Your task to perform on an android device: Open maps Image 0: 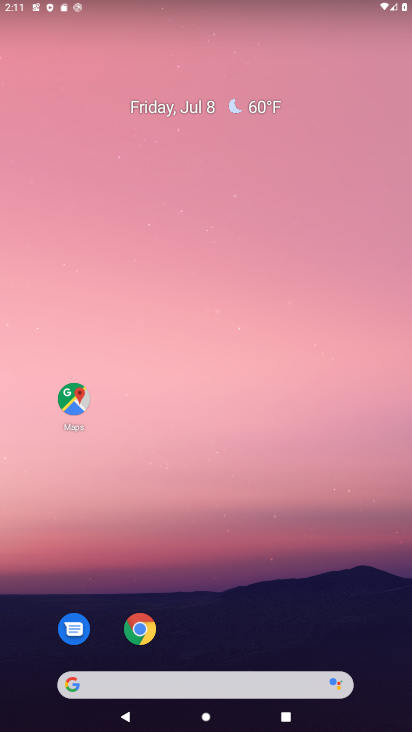
Step 0: click (70, 395)
Your task to perform on an android device: Open maps Image 1: 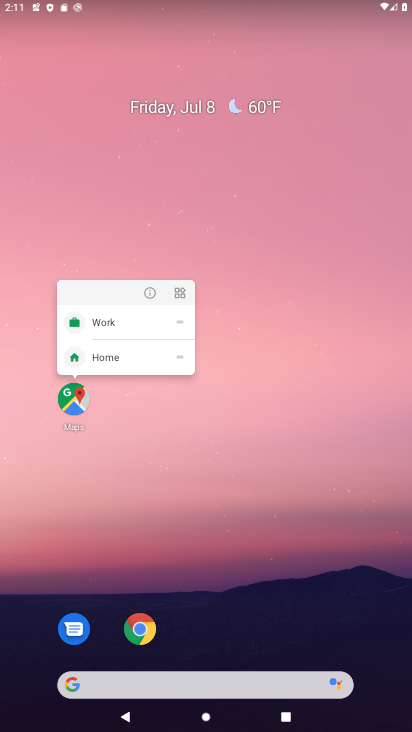
Step 1: click (82, 411)
Your task to perform on an android device: Open maps Image 2: 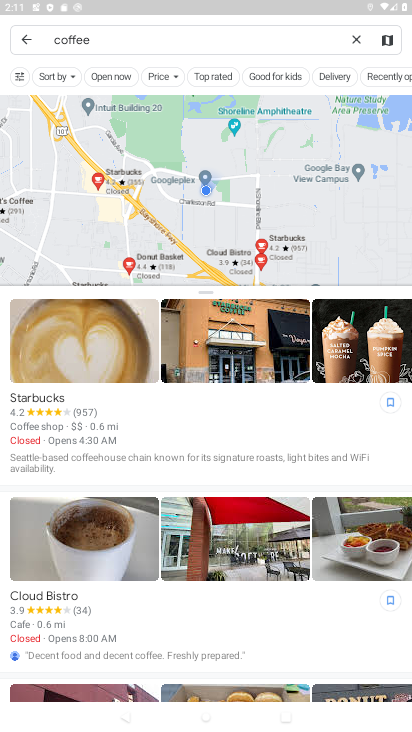
Step 2: task complete